Your task to perform on an android device: set the stopwatch Image 0: 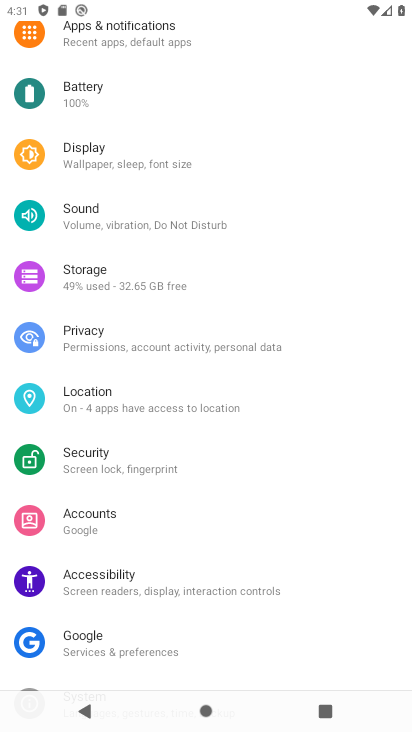
Step 0: press home button
Your task to perform on an android device: set the stopwatch Image 1: 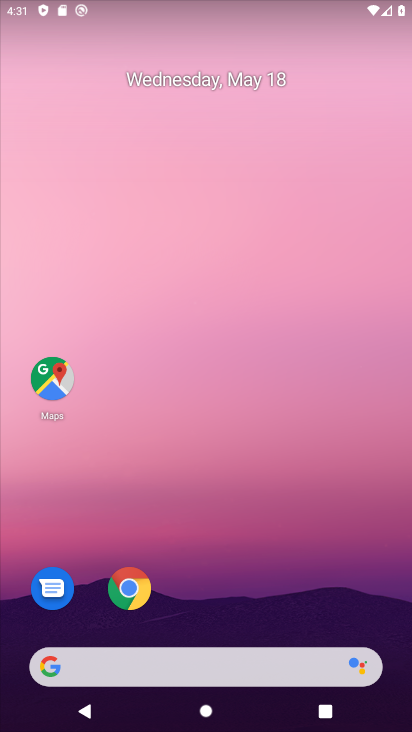
Step 1: drag from (278, 599) to (275, 93)
Your task to perform on an android device: set the stopwatch Image 2: 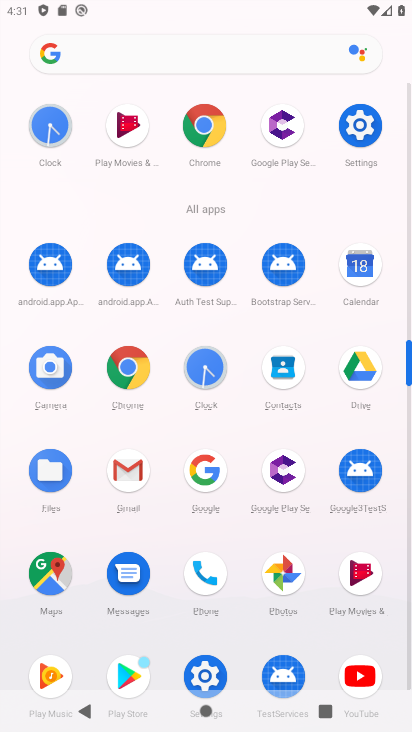
Step 2: click (201, 361)
Your task to perform on an android device: set the stopwatch Image 3: 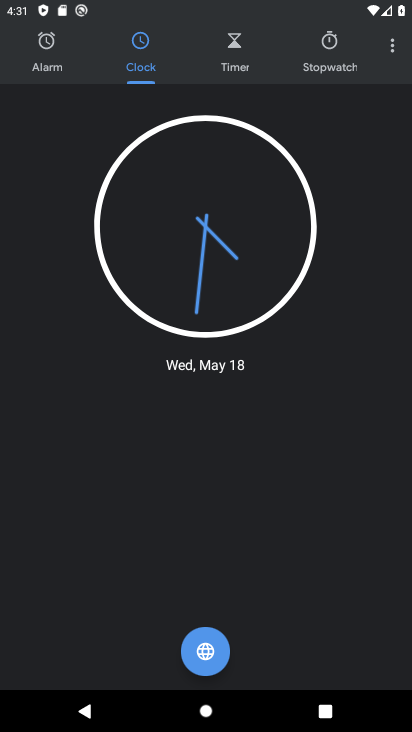
Step 3: click (328, 54)
Your task to perform on an android device: set the stopwatch Image 4: 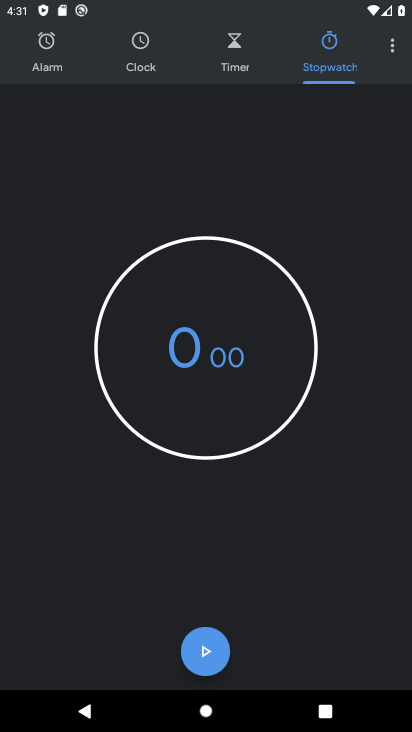
Step 4: click (211, 655)
Your task to perform on an android device: set the stopwatch Image 5: 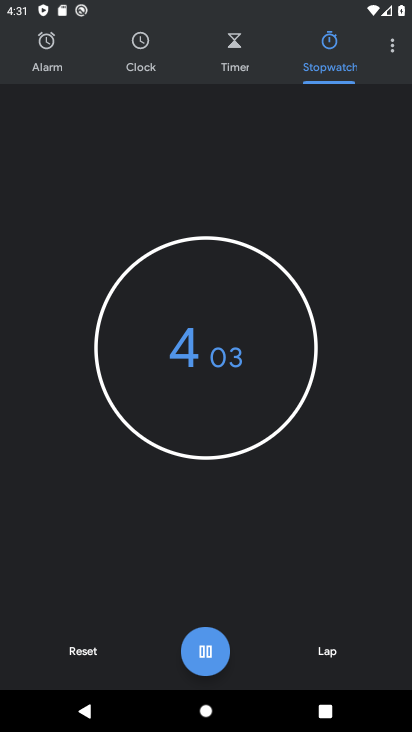
Step 5: task complete